Your task to perform on an android device: Go to accessibility settings Image 0: 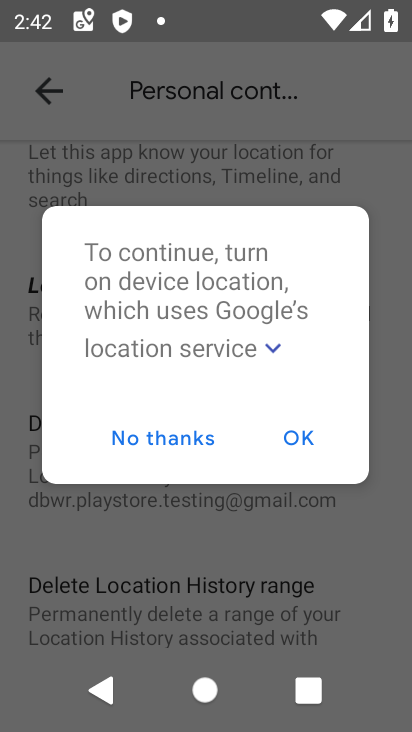
Step 0: press home button
Your task to perform on an android device: Go to accessibility settings Image 1: 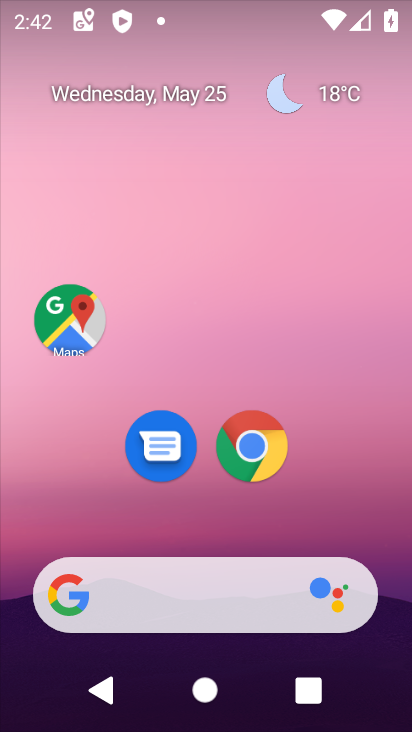
Step 1: drag from (113, 596) to (78, 22)
Your task to perform on an android device: Go to accessibility settings Image 2: 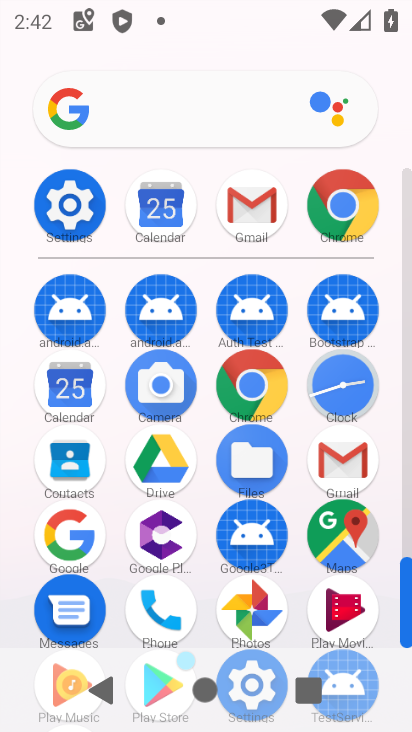
Step 2: click (77, 183)
Your task to perform on an android device: Go to accessibility settings Image 3: 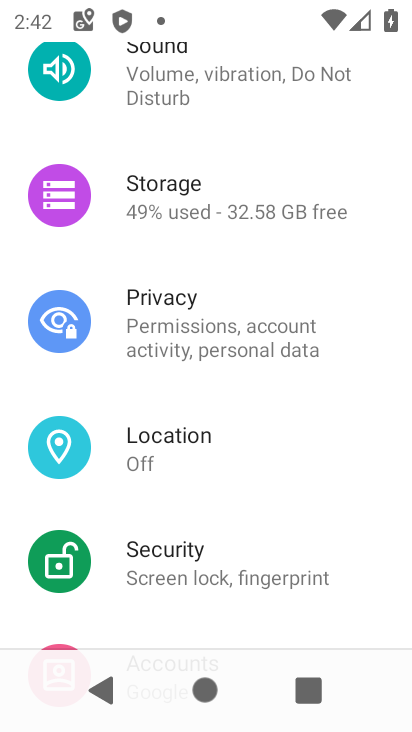
Step 3: drag from (188, 552) to (164, 50)
Your task to perform on an android device: Go to accessibility settings Image 4: 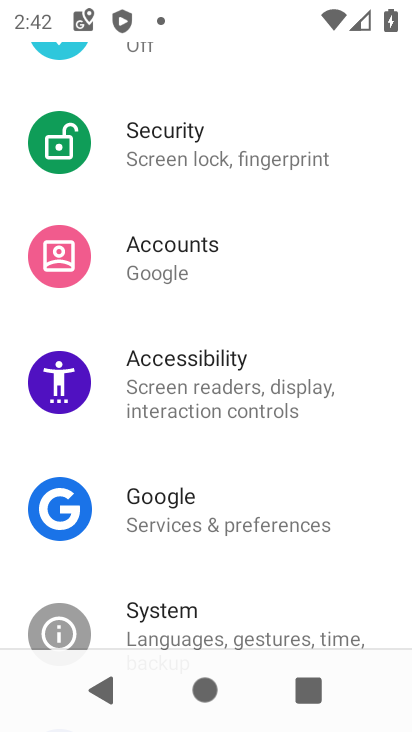
Step 4: click (230, 389)
Your task to perform on an android device: Go to accessibility settings Image 5: 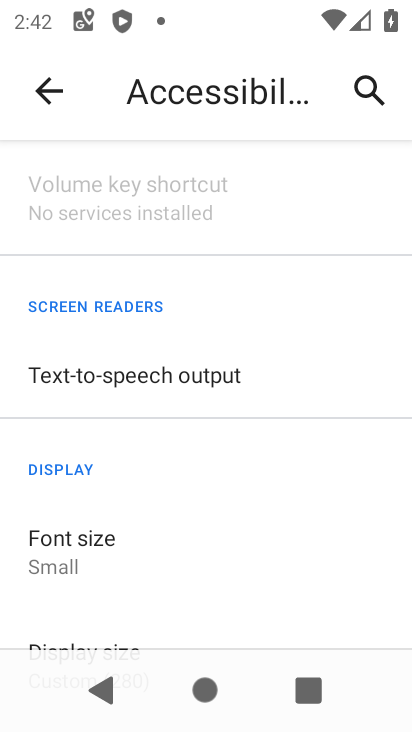
Step 5: task complete